Your task to perform on an android device: Search for sushi restaurants on Maps Image 0: 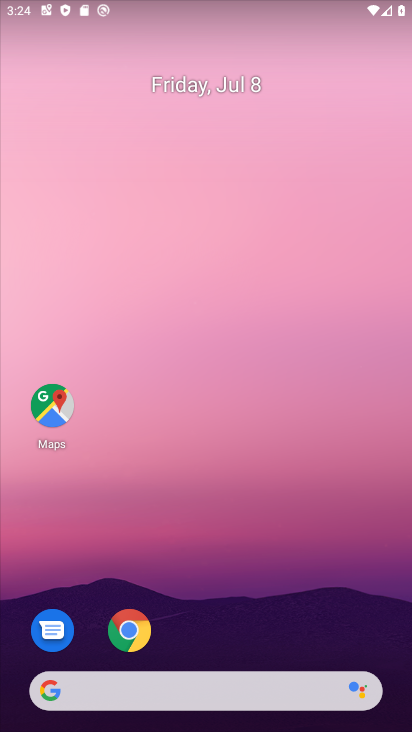
Step 0: click (56, 418)
Your task to perform on an android device: Search for sushi restaurants on Maps Image 1: 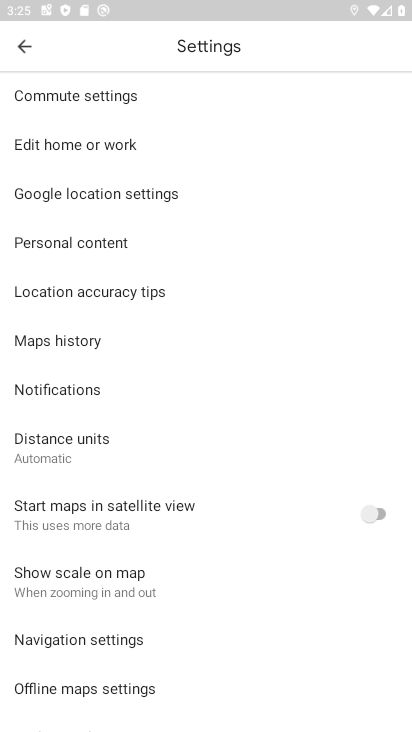
Step 1: click (17, 56)
Your task to perform on an android device: Search for sushi restaurants on Maps Image 2: 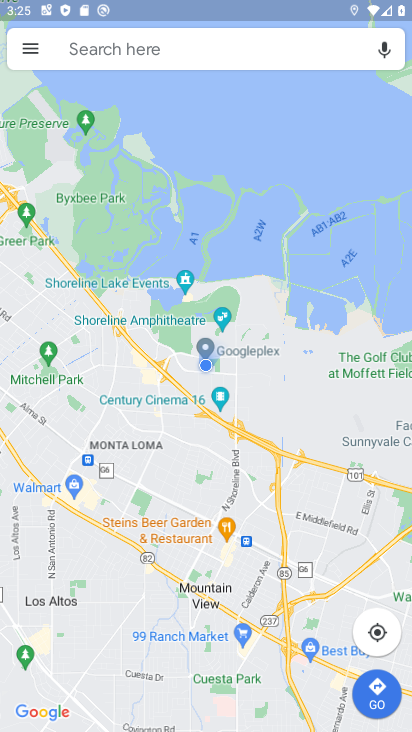
Step 2: click (161, 51)
Your task to perform on an android device: Search for sushi restaurants on Maps Image 3: 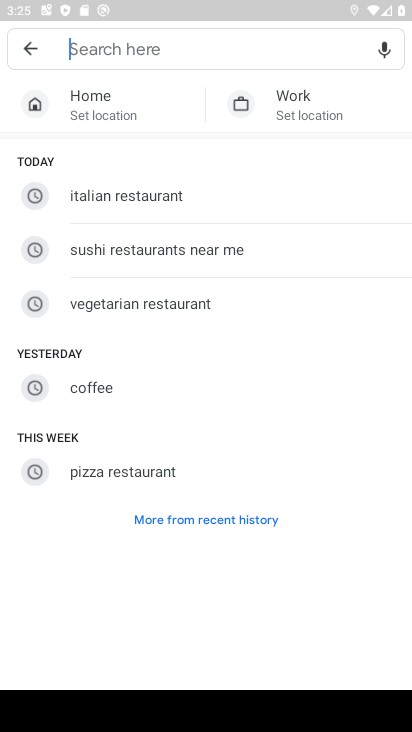
Step 3: click (313, 254)
Your task to perform on an android device: Search for sushi restaurants on Maps Image 4: 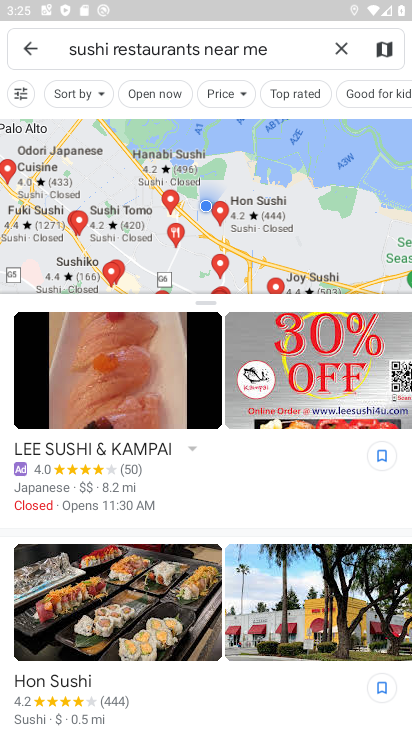
Step 4: task complete